Your task to perform on an android device: open app "Truecaller" Image 0: 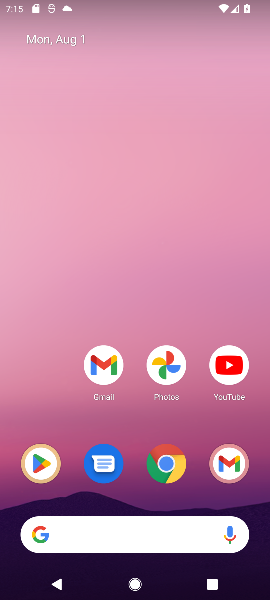
Step 0: drag from (133, 502) to (155, 27)
Your task to perform on an android device: open app "Truecaller" Image 1: 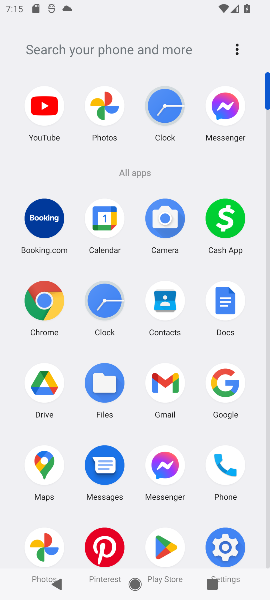
Step 1: click (120, 53)
Your task to perform on an android device: open app "Truecaller" Image 2: 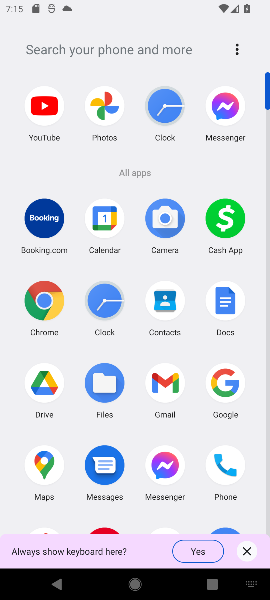
Step 2: type "truecaller"
Your task to perform on an android device: open app "Truecaller" Image 3: 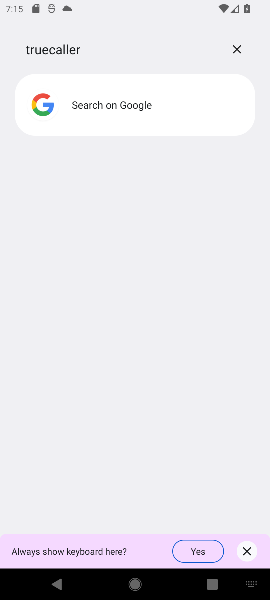
Step 3: click (98, 43)
Your task to perform on an android device: open app "Truecaller" Image 4: 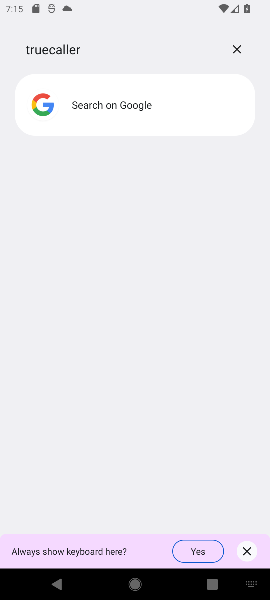
Step 4: click (98, 43)
Your task to perform on an android device: open app "Truecaller" Image 5: 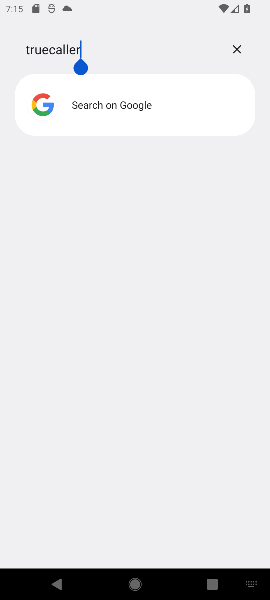
Step 5: click (76, 43)
Your task to perform on an android device: open app "Truecaller" Image 6: 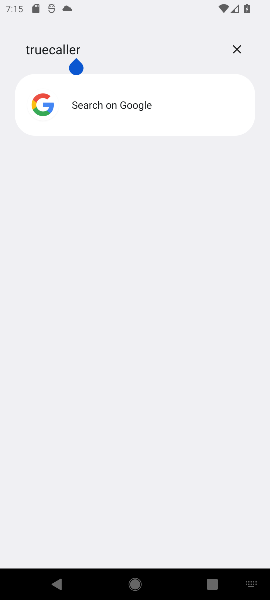
Step 6: click (76, 43)
Your task to perform on an android device: open app "Truecaller" Image 7: 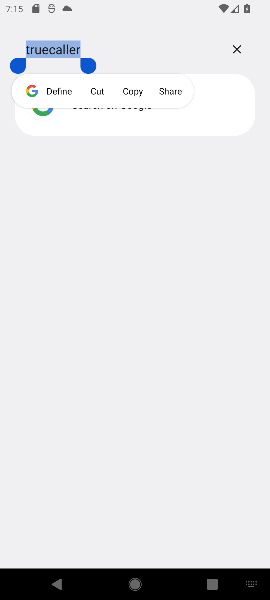
Step 7: click (76, 43)
Your task to perform on an android device: open app "Truecaller" Image 8: 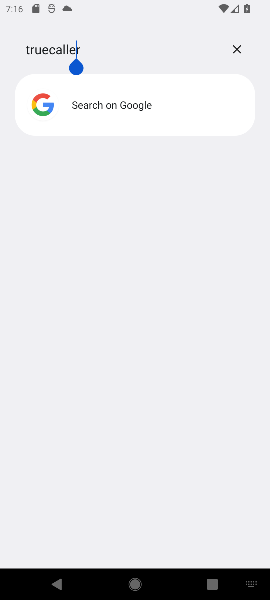
Step 8: click (57, 62)
Your task to perform on an android device: open app "Truecaller" Image 9: 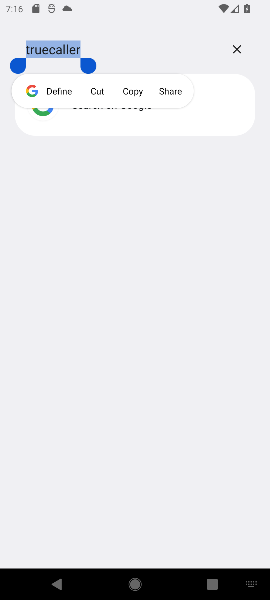
Step 9: click (94, 89)
Your task to perform on an android device: open app "Truecaller" Image 10: 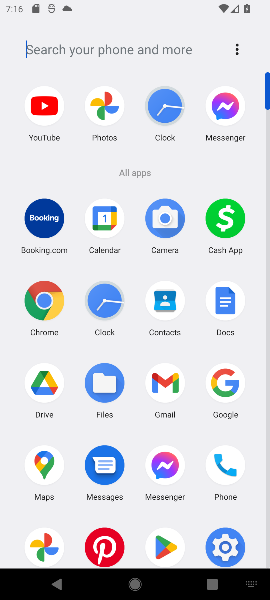
Step 10: press home button
Your task to perform on an android device: open app "Truecaller" Image 11: 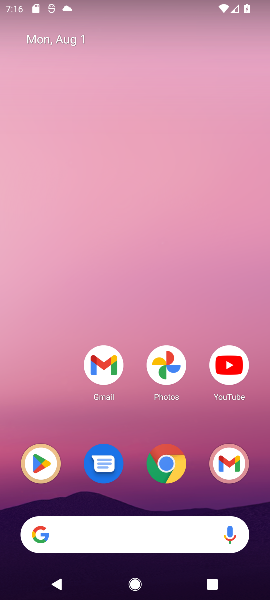
Step 11: click (44, 460)
Your task to perform on an android device: open app "Truecaller" Image 12: 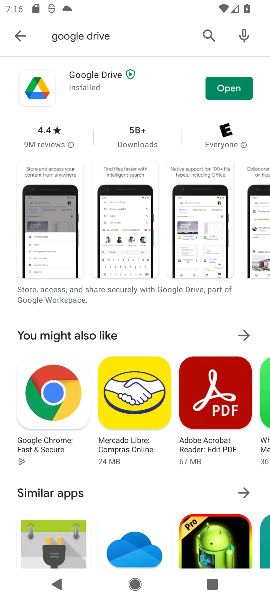
Step 12: click (199, 29)
Your task to perform on an android device: open app "Truecaller" Image 13: 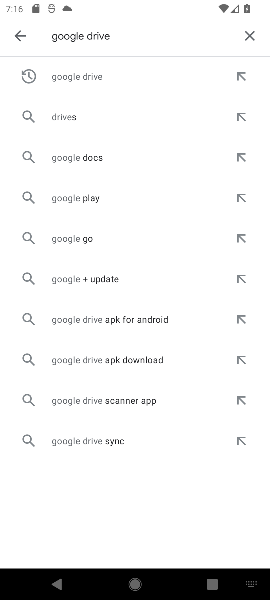
Step 13: click (248, 34)
Your task to perform on an android device: open app "Truecaller" Image 14: 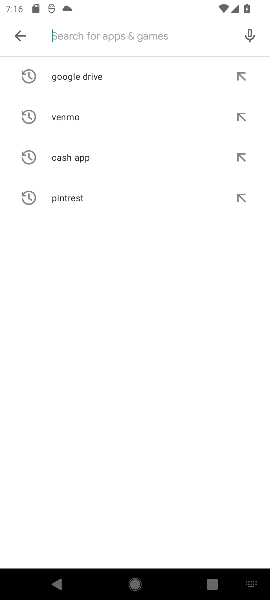
Step 14: type "Tata Consultancy Services|  PTI Building, 4, Sansad Marg  New Delhi- 110001, Delhi, INDIA"
Your task to perform on an android device: open app "Truecaller" Image 15: 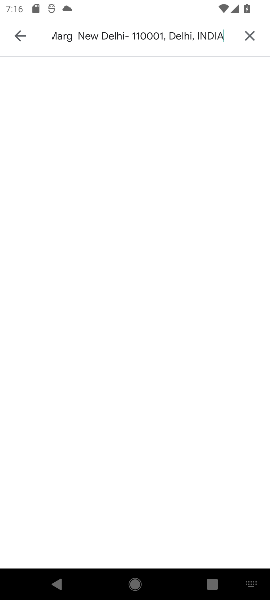
Step 15: task complete